Your task to perform on an android device: Go to location settings Image 0: 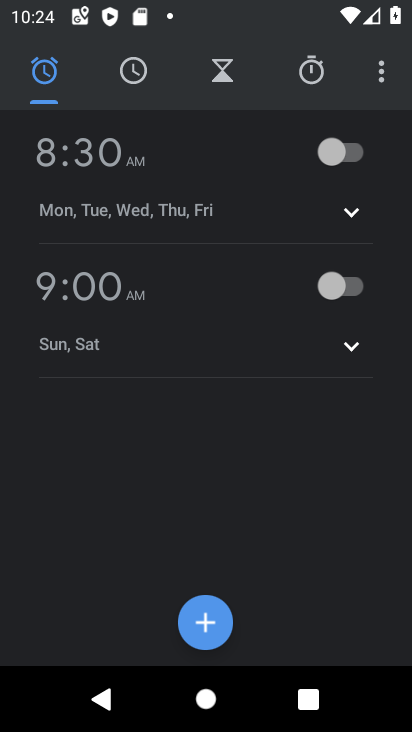
Step 0: press back button
Your task to perform on an android device: Go to location settings Image 1: 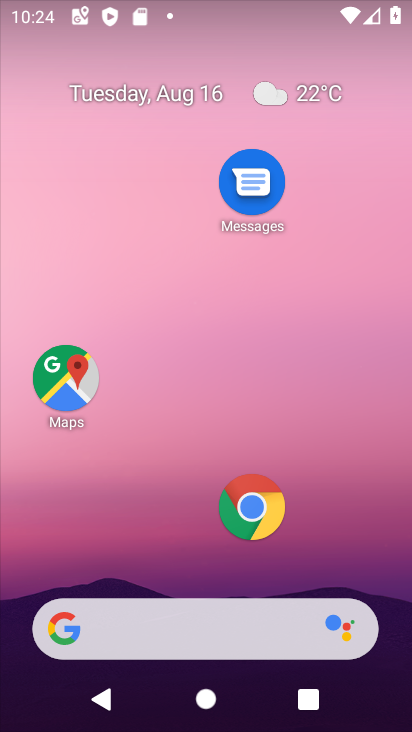
Step 1: drag from (133, 560) to (259, 0)
Your task to perform on an android device: Go to location settings Image 2: 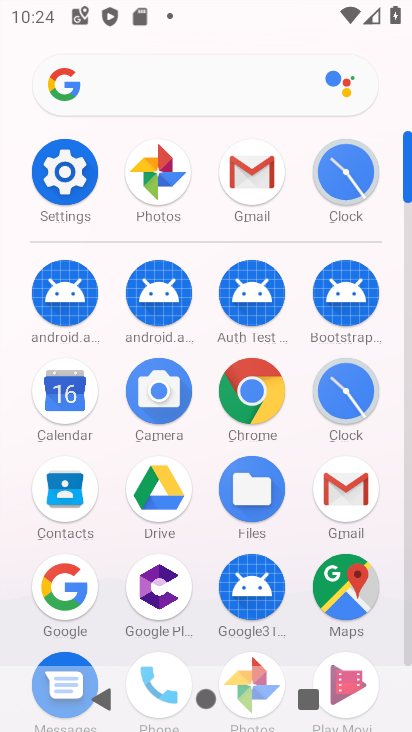
Step 2: click (77, 179)
Your task to perform on an android device: Go to location settings Image 3: 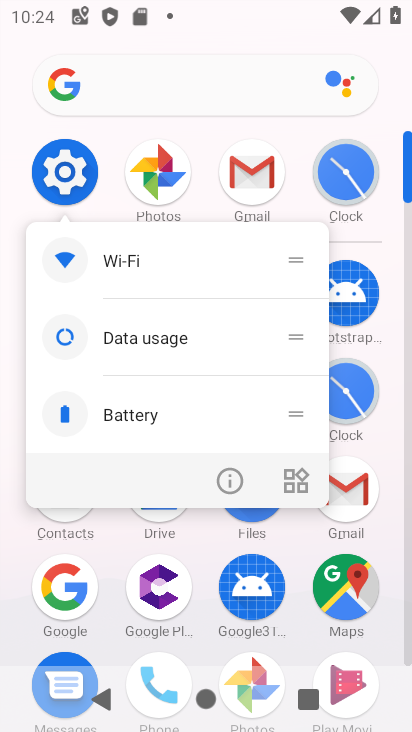
Step 3: click (72, 174)
Your task to perform on an android device: Go to location settings Image 4: 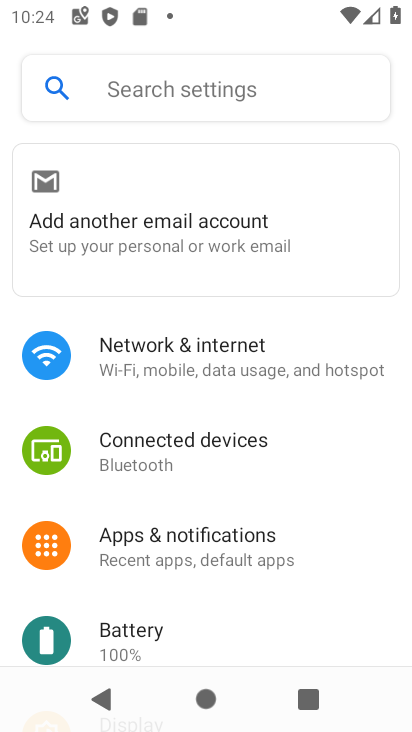
Step 4: drag from (179, 645) to (338, 65)
Your task to perform on an android device: Go to location settings Image 5: 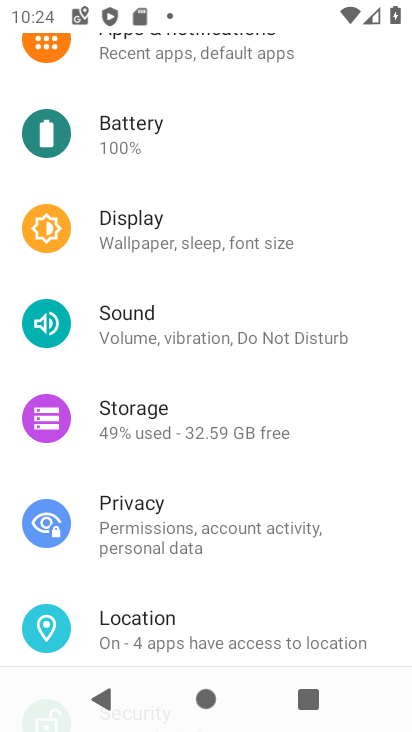
Step 5: click (173, 623)
Your task to perform on an android device: Go to location settings Image 6: 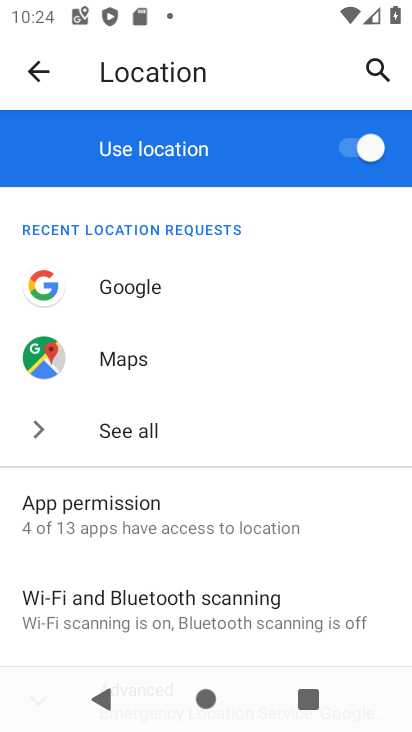
Step 6: task complete